Your task to perform on an android device: How do I get to the nearest Walmart? Image 0: 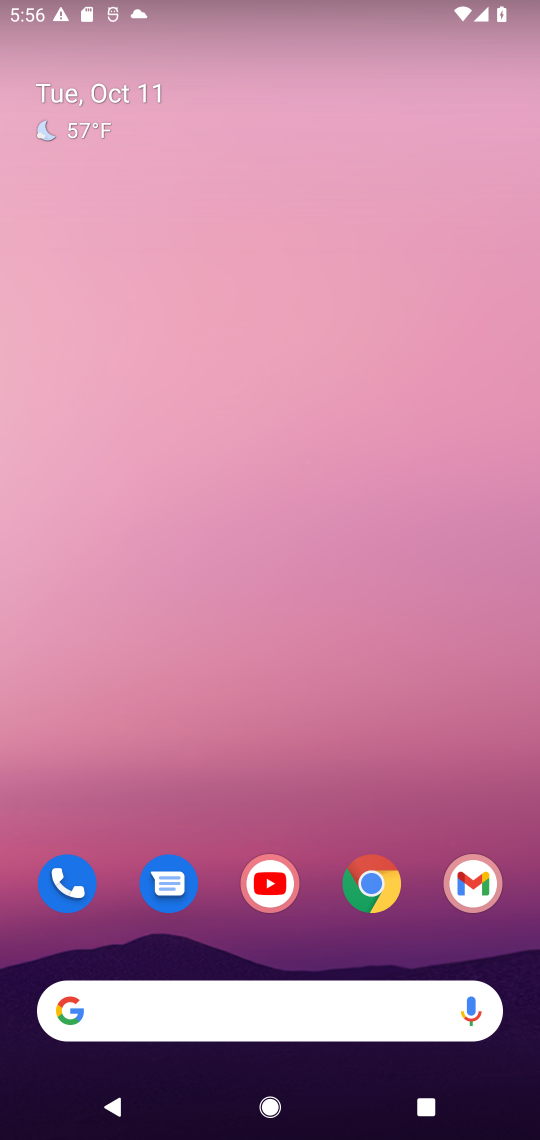
Step 0: drag from (324, 919) to (347, 75)
Your task to perform on an android device: How do I get to the nearest Walmart? Image 1: 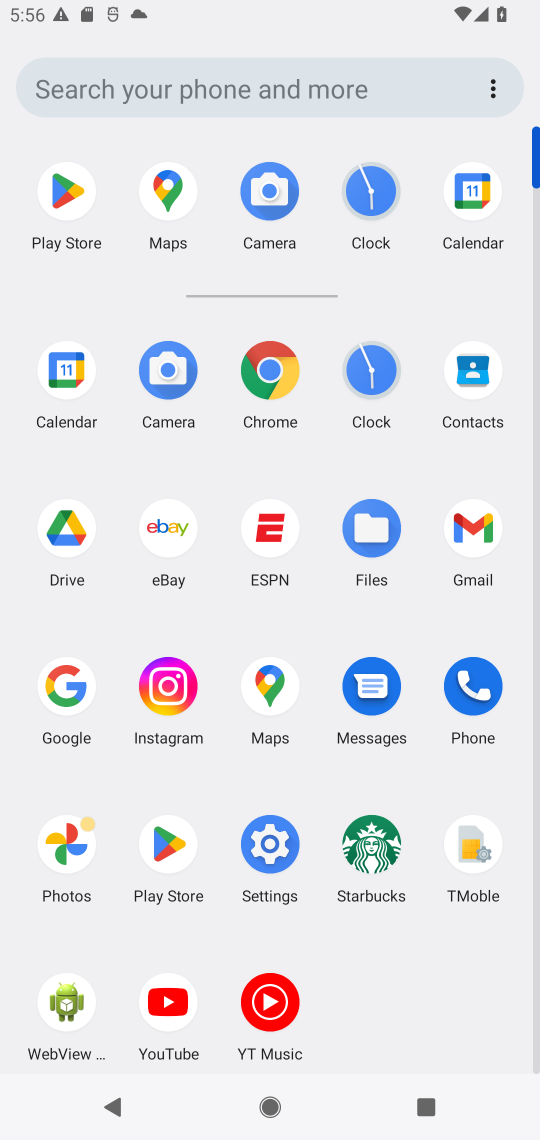
Step 1: click (277, 375)
Your task to perform on an android device: How do I get to the nearest Walmart? Image 2: 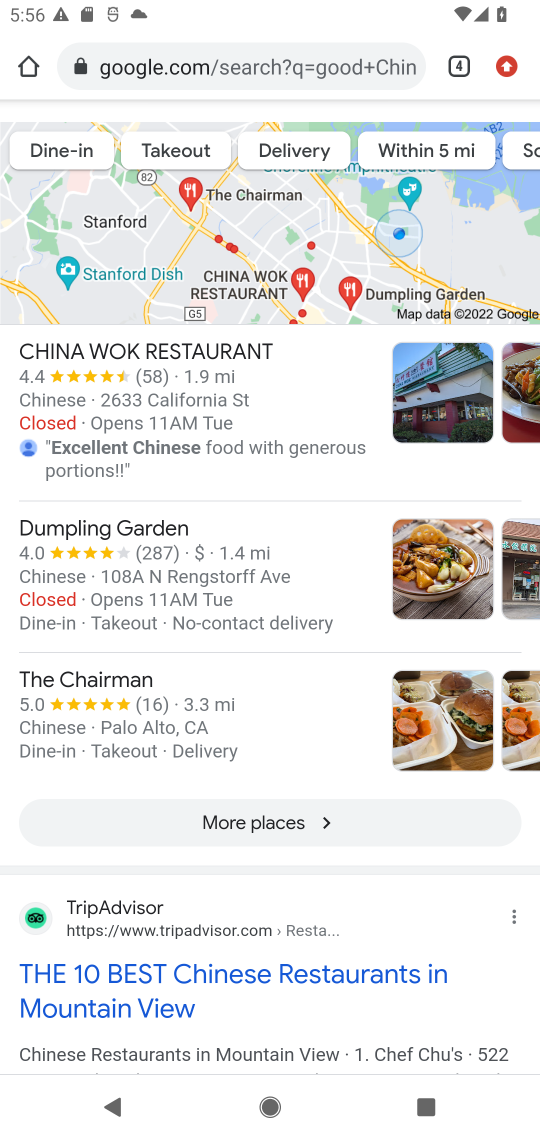
Step 2: click (275, 60)
Your task to perform on an android device: How do I get to the nearest Walmart? Image 3: 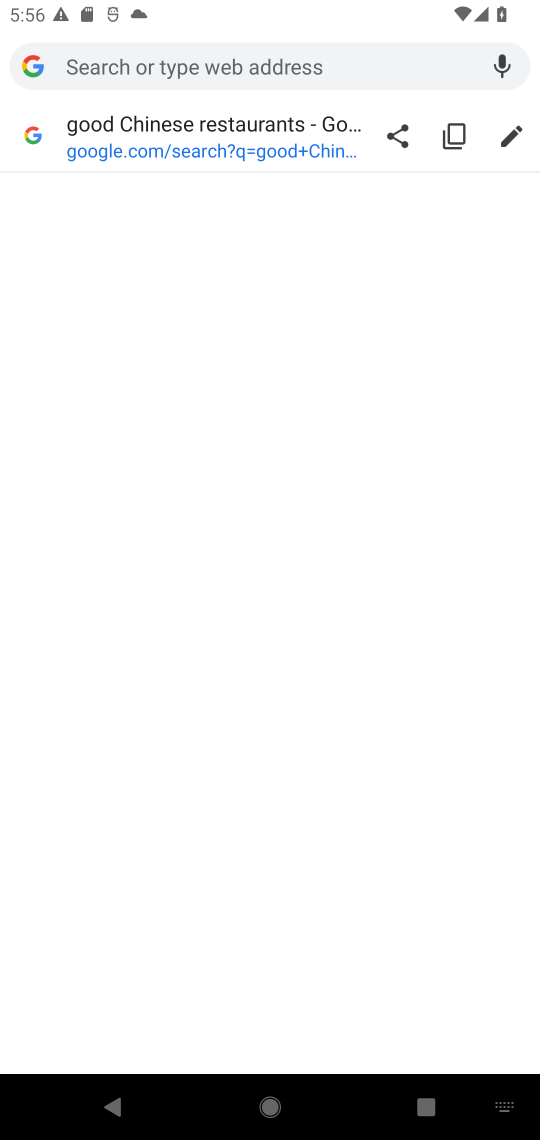
Step 3: type "How do I get to the nearest Walmart/"
Your task to perform on an android device: How do I get to the nearest Walmart? Image 4: 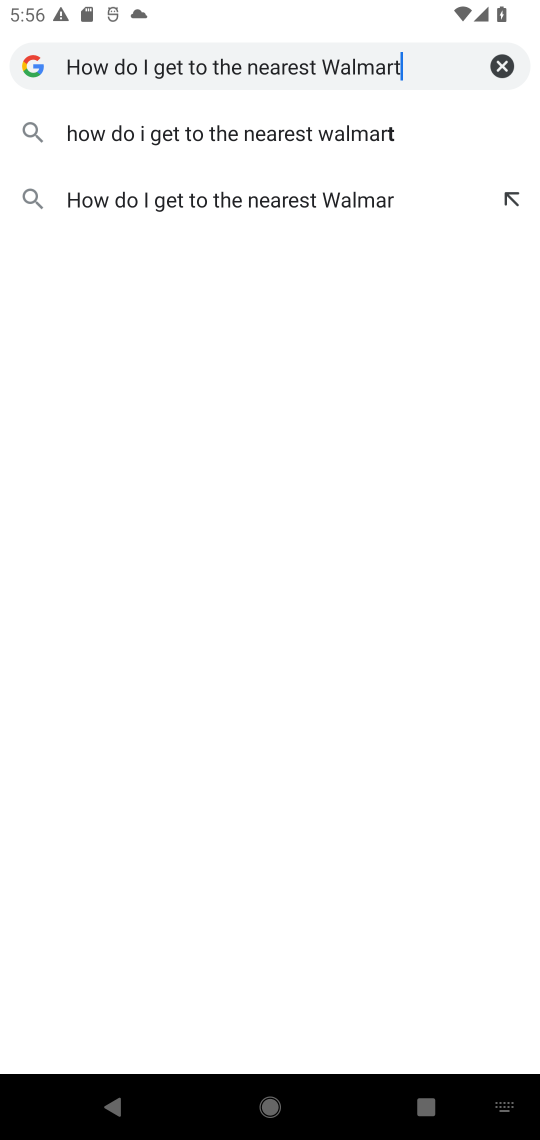
Step 4: press enter
Your task to perform on an android device: How do I get to the nearest Walmart? Image 5: 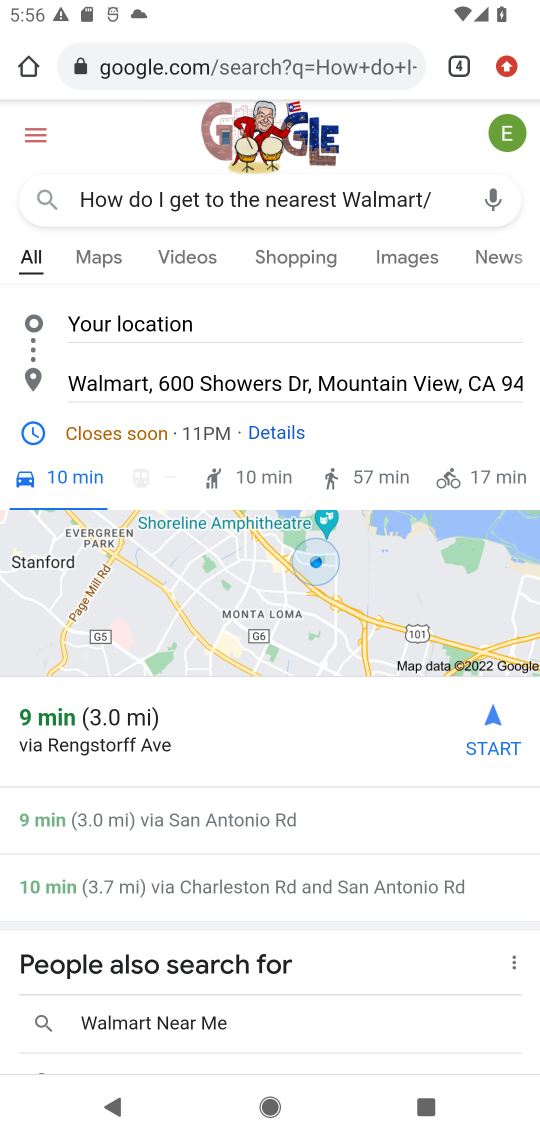
Step 5: task complete